Your task to perform on an android device: Open Reddit.com Image 0: 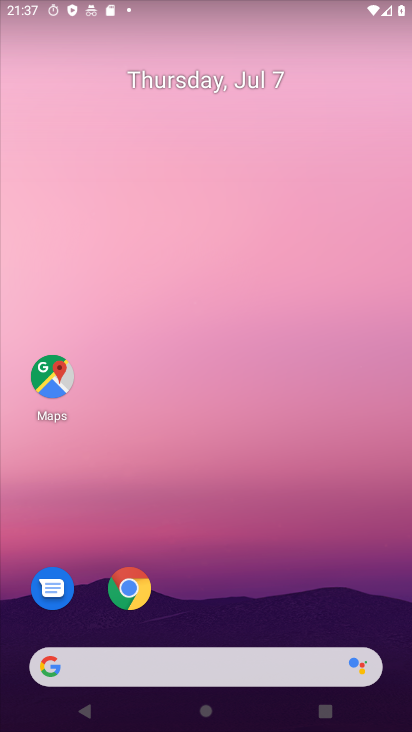
Step 0: drag from (204, 282) to (188, 177)
Your task to perform on an android device: Open Reddit.com Image 1: 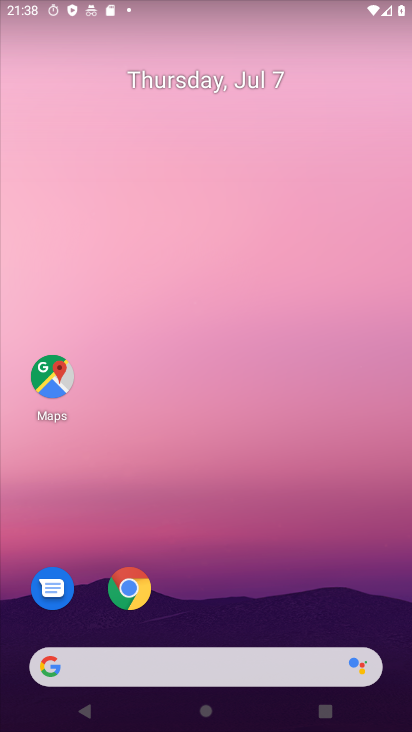
Step 1: drag from (285, 651) to (208, 304)
Your task to perform on an android device: Open Reddit.com Image 2: 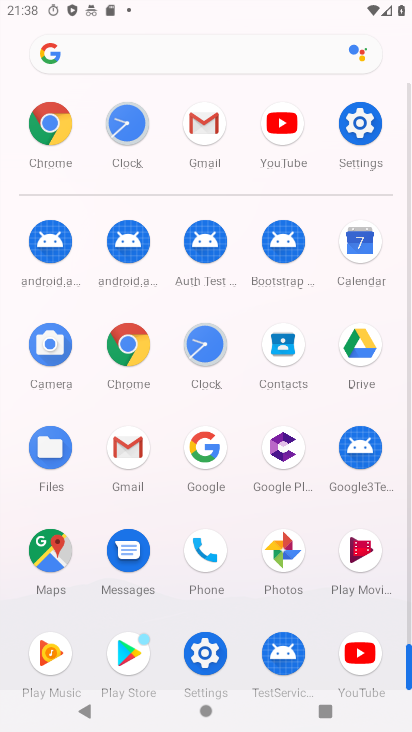
Step 2: drag from (250, 659) to (245, 431)
Your task to perform on an android device: Open Reddit.com Image 3: 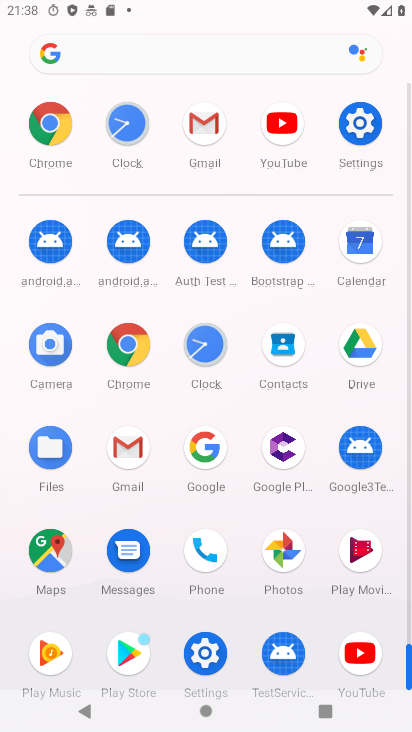
Step 3: click (52, 123)
Your task to perform on an android device: Open Reddit.com Image 4: 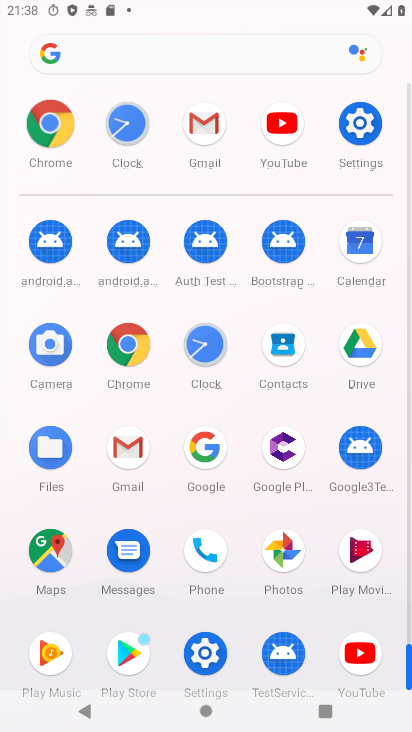
Step 4: click (52, 121)
Your task to perform on an android device: Open Reddit.com Image 5: 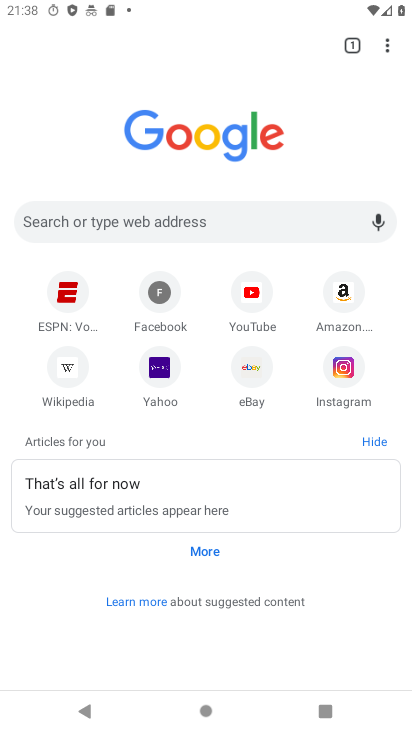
Step 5: click (67, 216)
Your task to perform on an android device: Open Reddit.com Image 6: 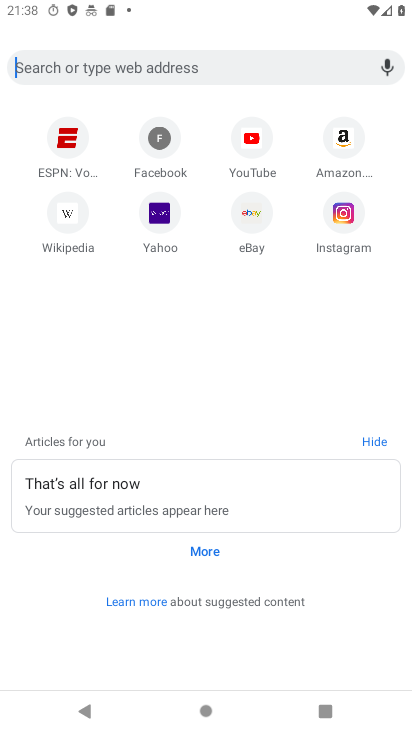
Step 6: click (68, 207)
Your task to perform on an android device: Open Reddit.com Image 7: 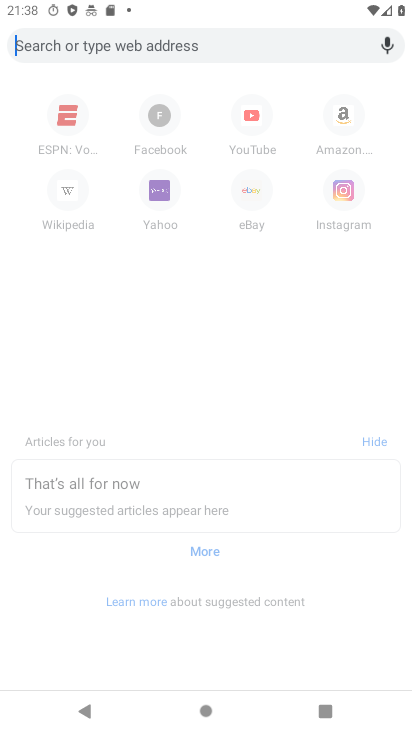
Step 7: click (70, 210)
Your task to perform on an android device: Open Reddit.com Image 8: 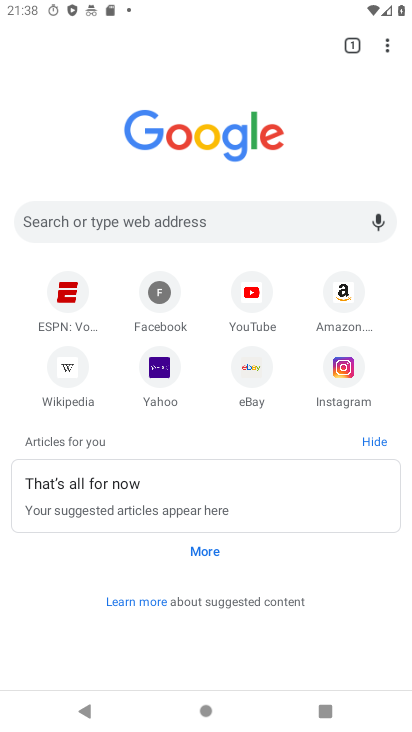
Step 8: click (39, 221)
Your task to perform on an android device: Open Reddit.com Image 9: 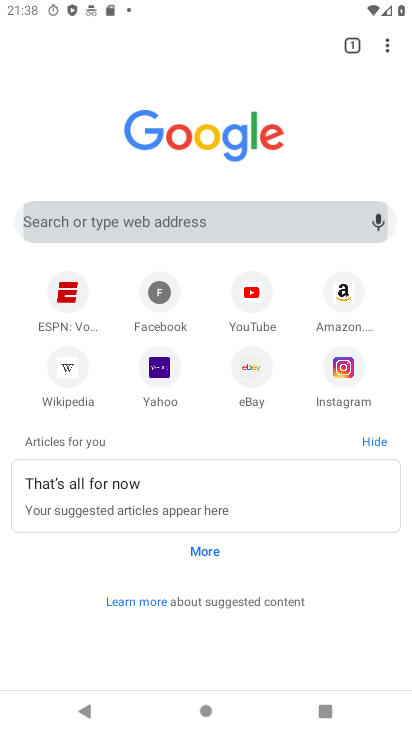
Step 9: click (38, 222)
Your task to perform on an android device: Open Reddit.com Image 10: 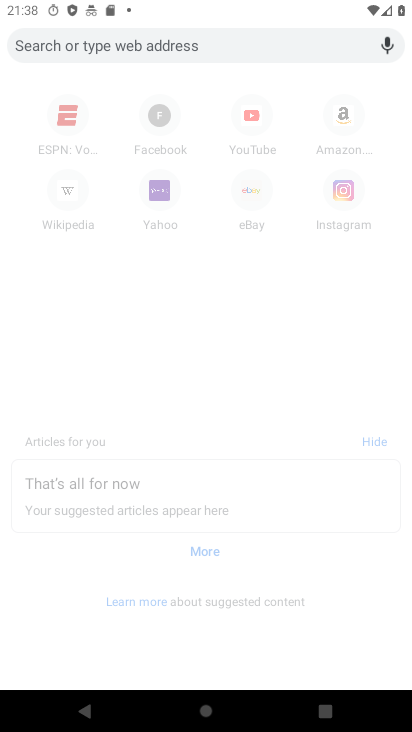
Step 10: type "reddit.com"
Your task to perform on an android device: Open Reddit.com Image 11: 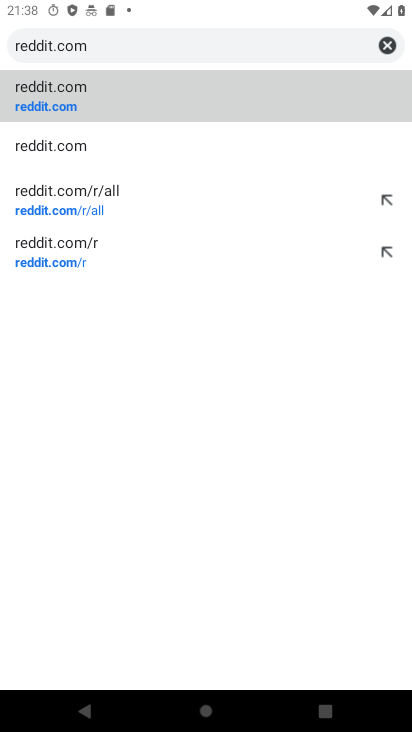
Step 11: click (36, 98)
Your task to perform on an android device: Open Reddit.com Image 12: 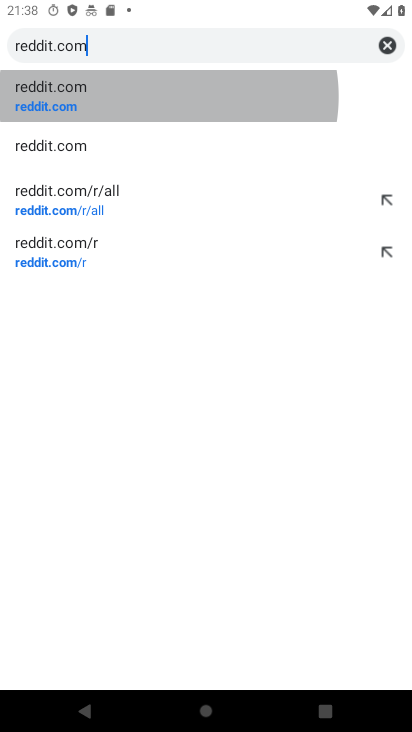
Step 12: click (43, 97)
Your task to perform on an android device: Open Reddit.com Image 13: 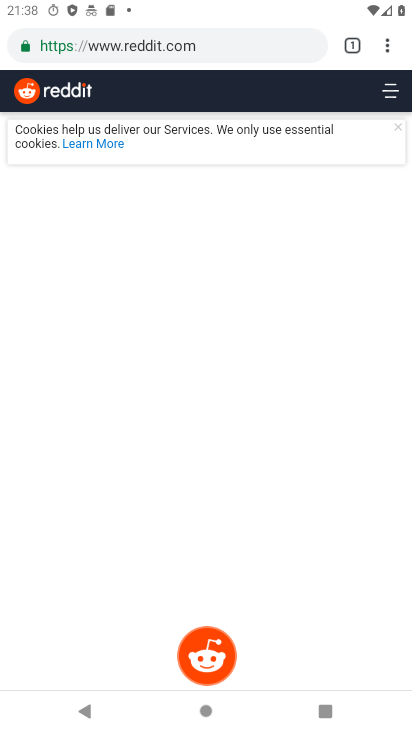
Step 13: task complete